Your task to perform on an android device: change the clock style Image 0: 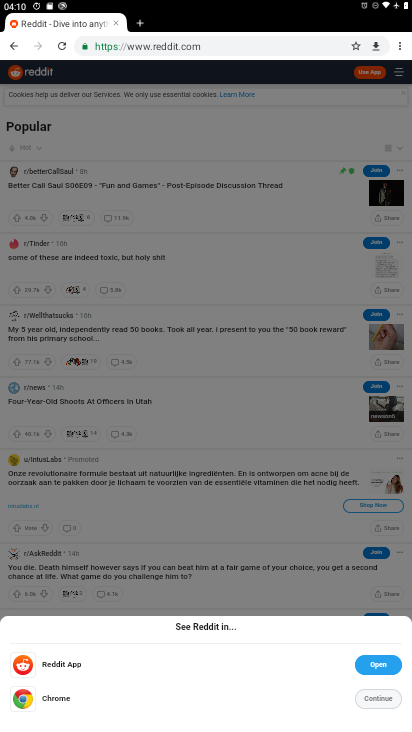
Step 0: press home button
Your task to perform on an android device: change the clock style Image 1: 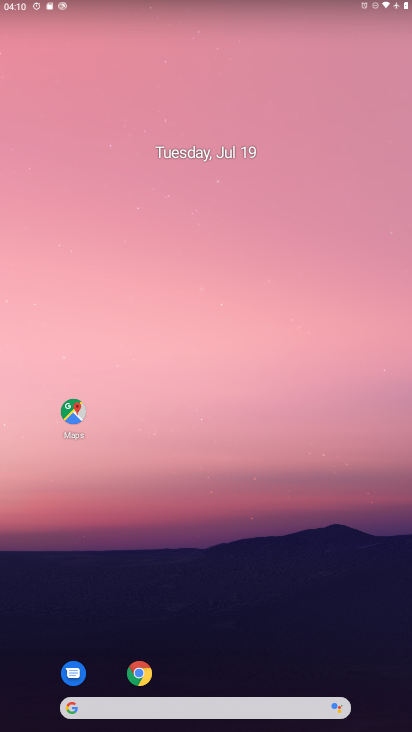
Step 1: drag from (237, 584) to (242, 65)
Your task to perform on an android device: change the clock style Image 2: 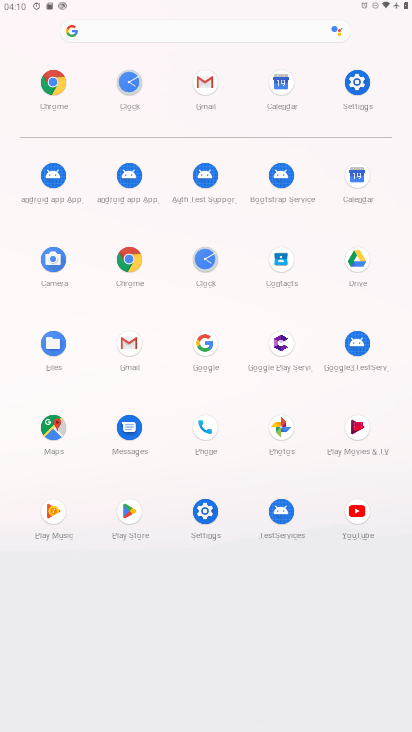
Step 2: click (200, 264)
Your task to perform on an android device: change the clock style Image 3: 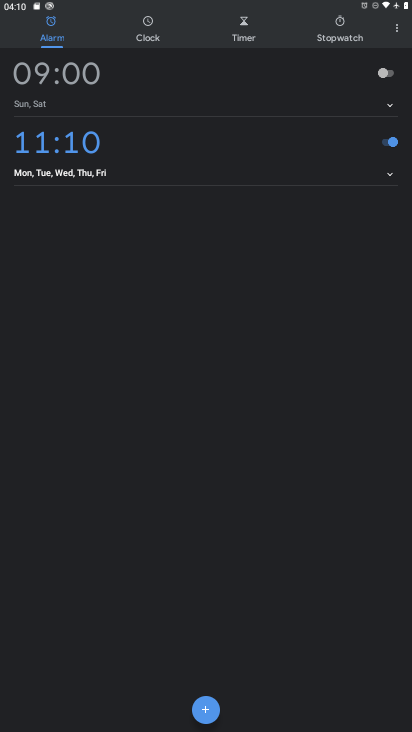
Step 3: click (387, 29)
Your task to perform on an android device: change the clock style Image 4: 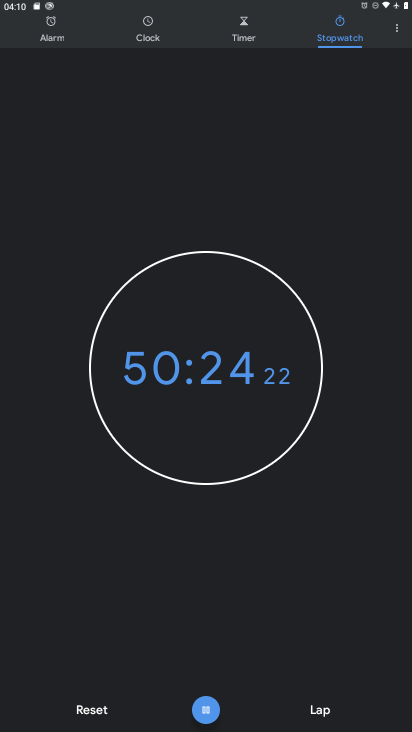
Step 4: click (397, 35)
Your task to perform on an android device: change the clock style Image 5: 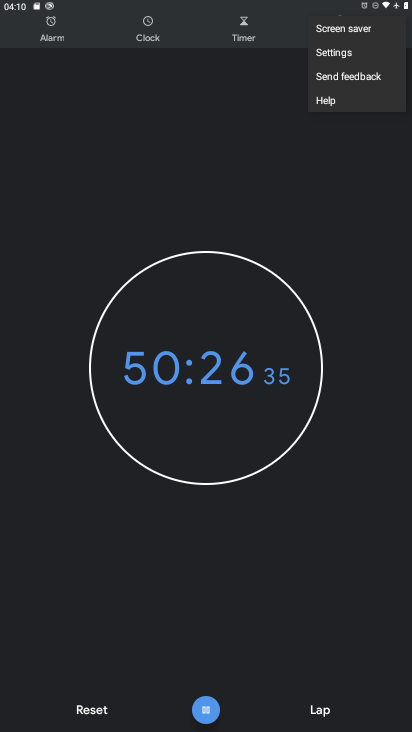
Step 5: click (339, 56)
Your task to perform on an android device: change the clock style Image 6: 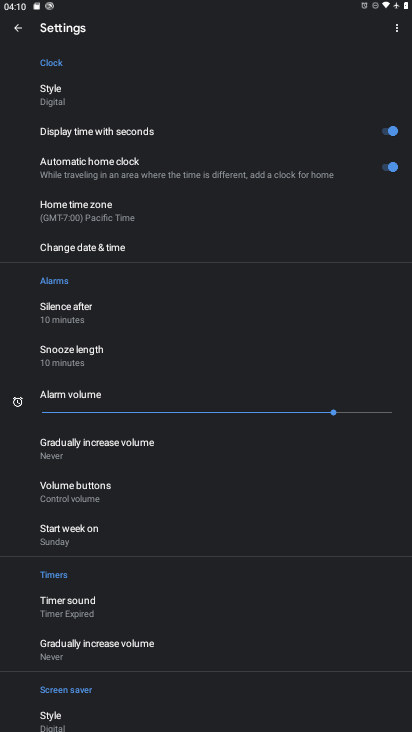
Step 6: click (74, 103)
Your task to perform on an android device: change the clock style Image 7: 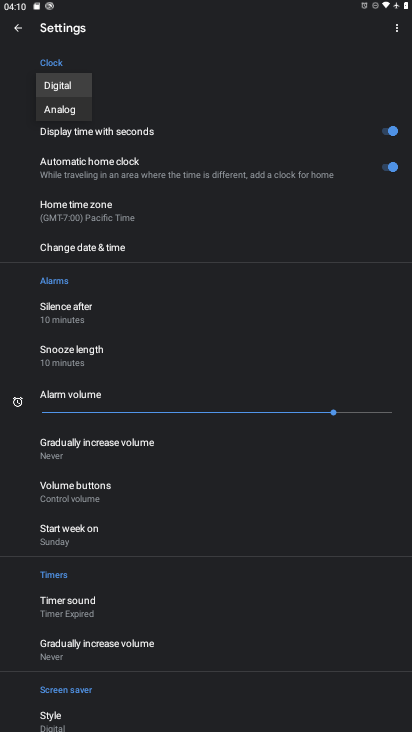
Step 7: click (66, 114)
Your task to perform on an android device: change the clock style Image 8: 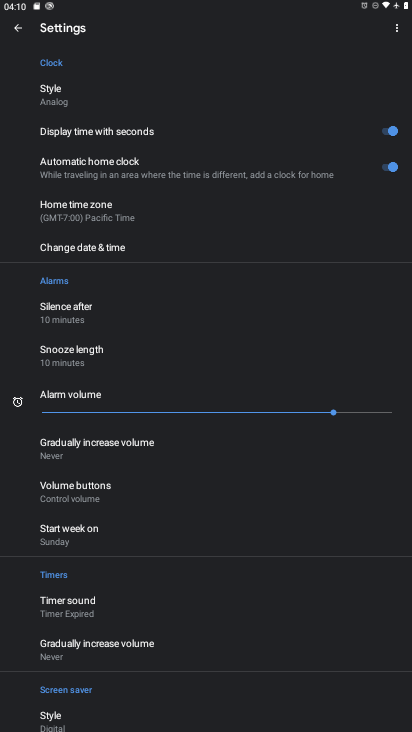
Step 8: task complete